Your task to perform on an android device: find which apps use the phone's location Image 0: 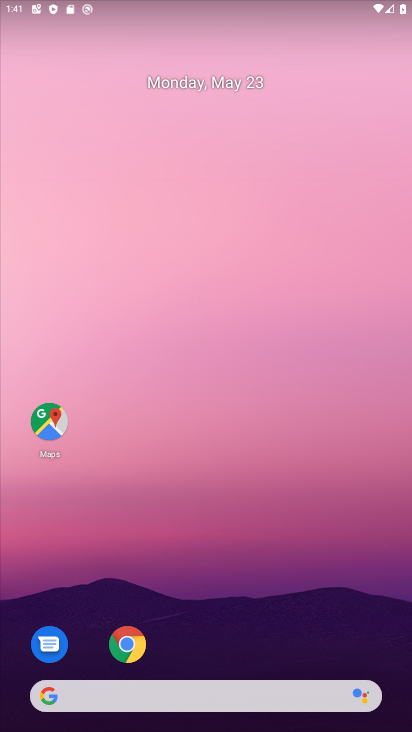
Step 0: drag from (276, 608) to (203, 20)
Your task to perform on an android device: find which apps use the phone's location Image 1: 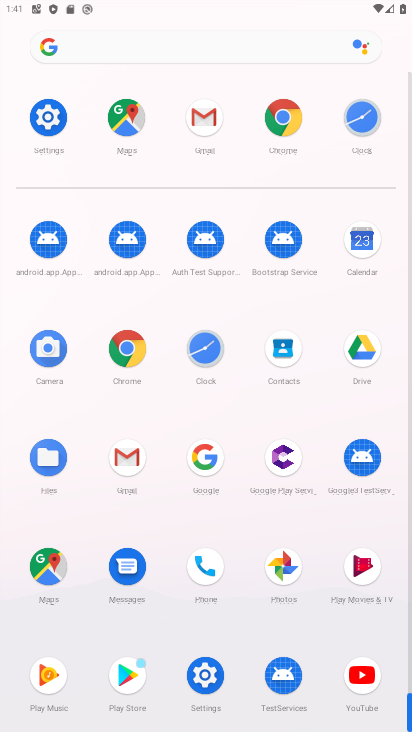
Step 1: drag from (15, 551) to (23, 186)
Your task to perform on an android device: find which apps use the phone's location Image 2: 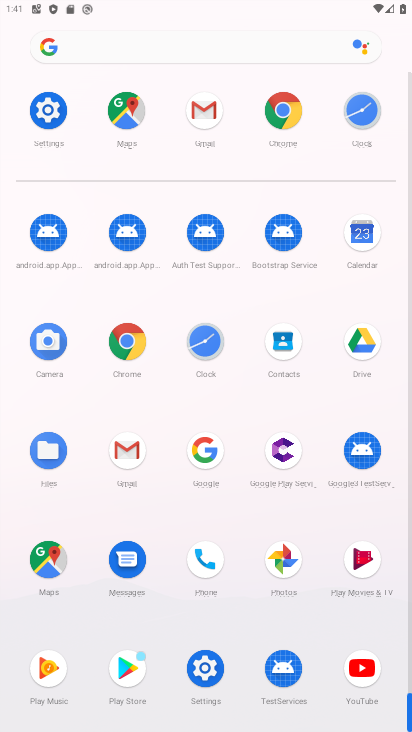
Step 2: click (204, 664)
Your task to perform on an android device: find which apps use the phone's location Image 3: 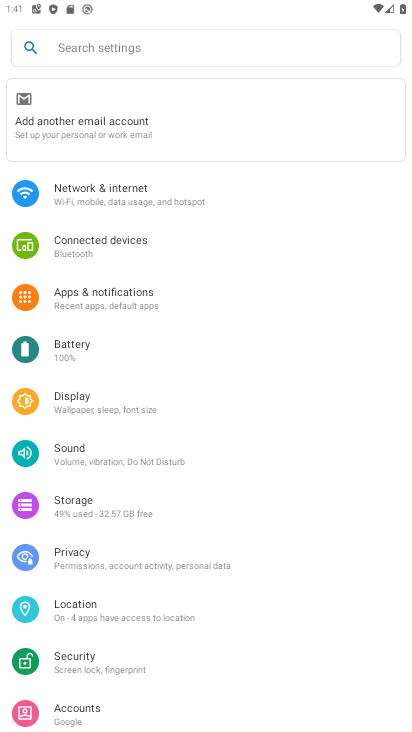
Step 3: drag from (268, 587) to (261, 163)
Your task to perform on an android device: find which apps use the phone's location Image 4: 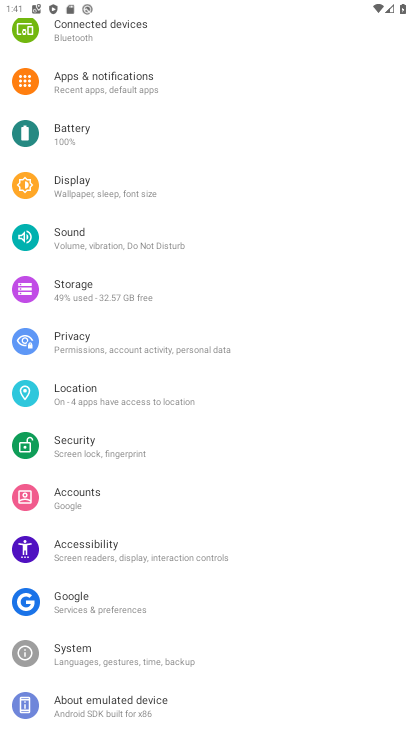
Step 4: click (91, 544)
Your task to perform on an android device: find which apps use the phone's location Image 5: 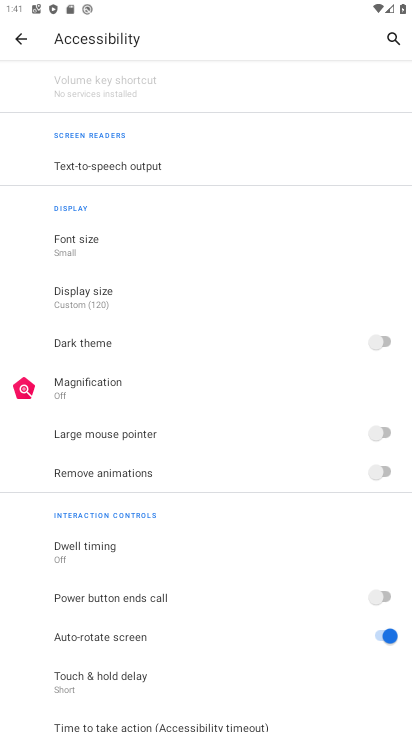
Step 5: drag from (241, 566) to (287, 142)
Your task to perform on an android device: find which apps use the phone's location Image 6: 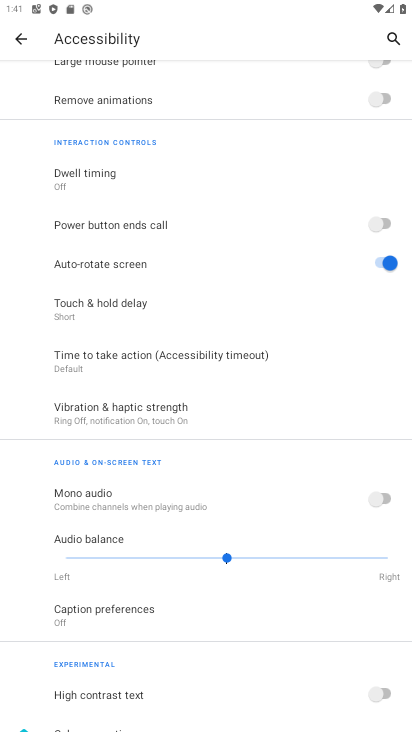
Step 6: drag from (275, 119) to (279, 724)
Your task to perform on an android device: find which apps use the phone's location Image 7: 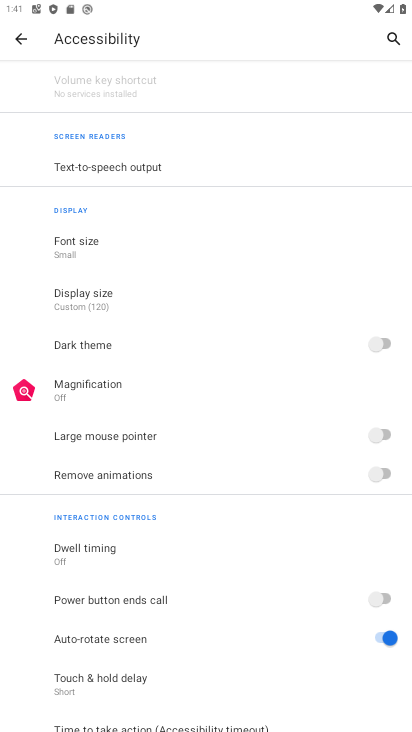
Step 7: drag from (227, 220) to (232, 628)
Your task to perform on an android device: find which apps use the phone's location Image 8: 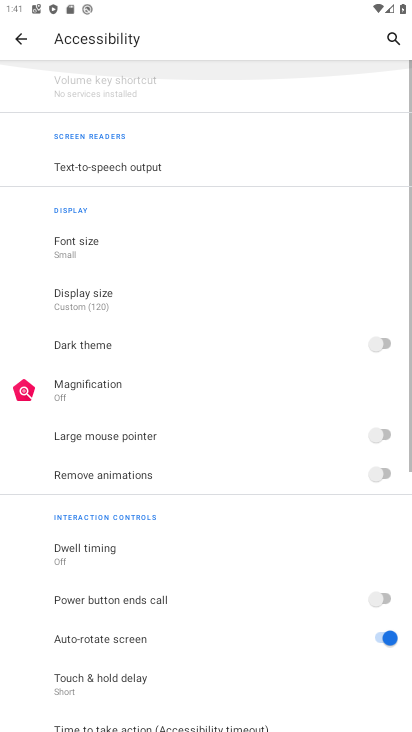
Step 8: drag from (227, 633) to (272, 85)
Your task to perform on an android device: find which apps use the phone's location Image 9: 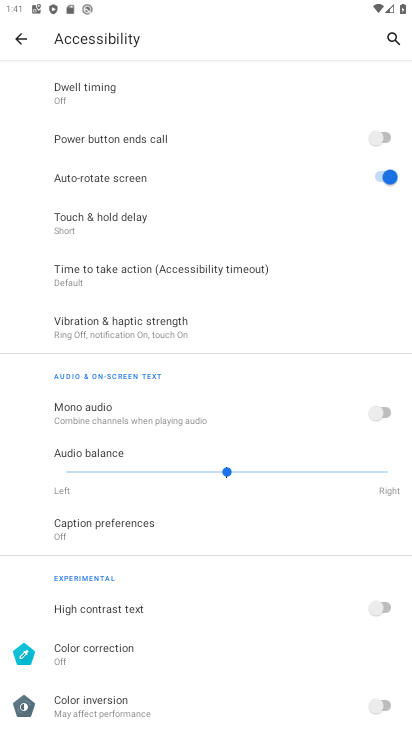
Step 9: drag from (262, 94) to (269, 573)
Your task to perform on an android device: find which apps use the phone's location Image 10: 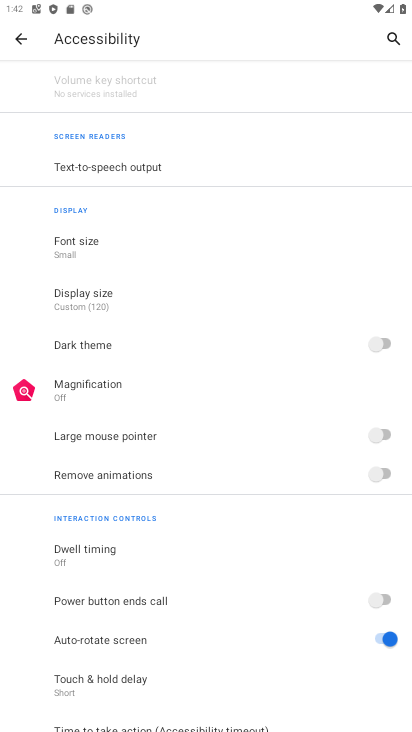
Step 10: drag from (229, 226) to (251, 618)
Your task to perform on an android device: find which apps use the phone's location Image 11: 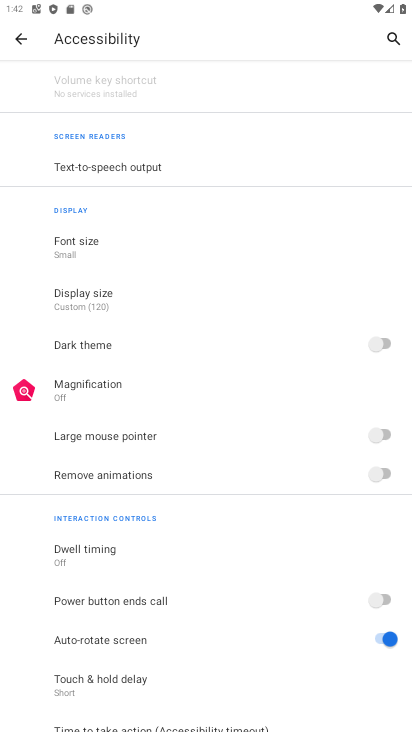
Step 11: drag from (188, 119) to (207, 611)
Your task to perform on an android device: find which apps use the phone's location Image 12: 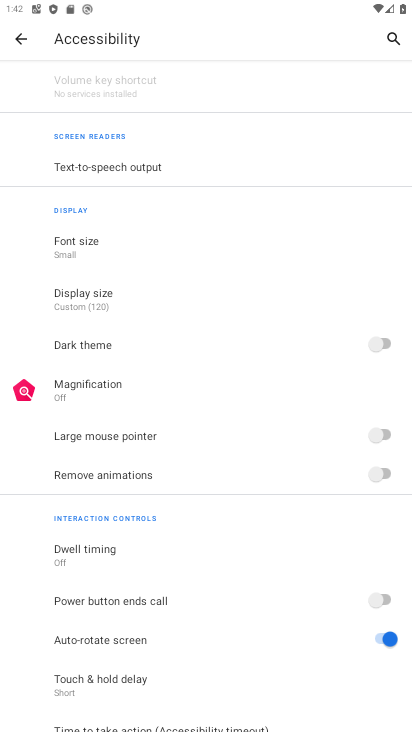
Step 12: click (20, 39)
Your task to perform on an android device: find which apps use the phone's location Image 13: 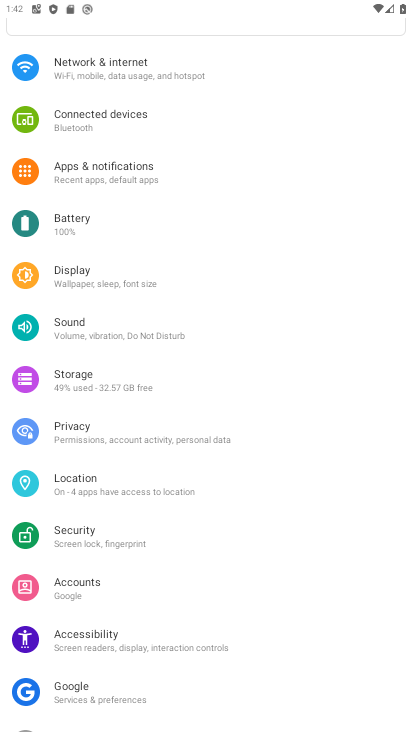
Step 13: click (123, 449)
Your task to perform on an android device: find which apps use the phone's location Image 14: 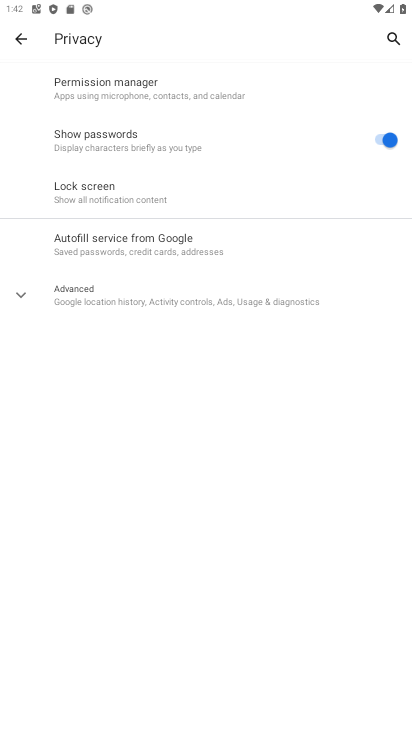
Step 14: click (46, 286)
Your task to perform on an android device: find which apps use the phone's location Image 15: 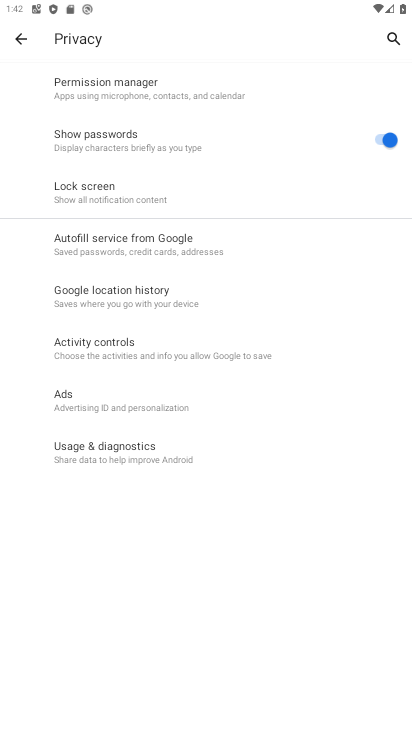
Step 15: click (25, 38)
Your task to perform on an android device: find which apps use the phone's location Image 16: 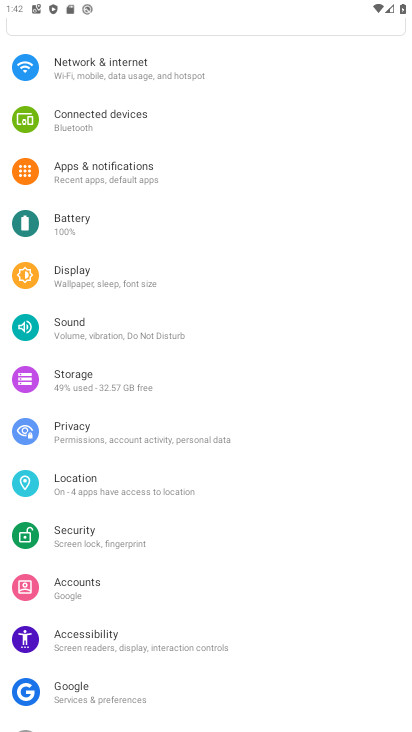
Step 16: click (94, 478)
Your task to perform on an android device: find which apps use the phone's location Image 17: 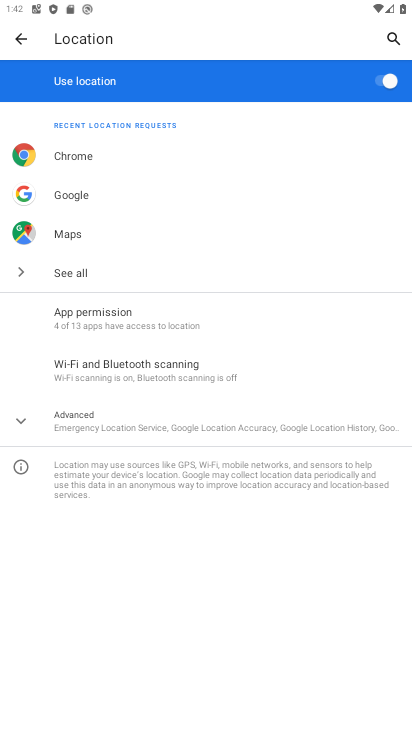
Step 17: click (99, 316)
Your task to perform on an android device: find which apps use the phone's location Image 18: 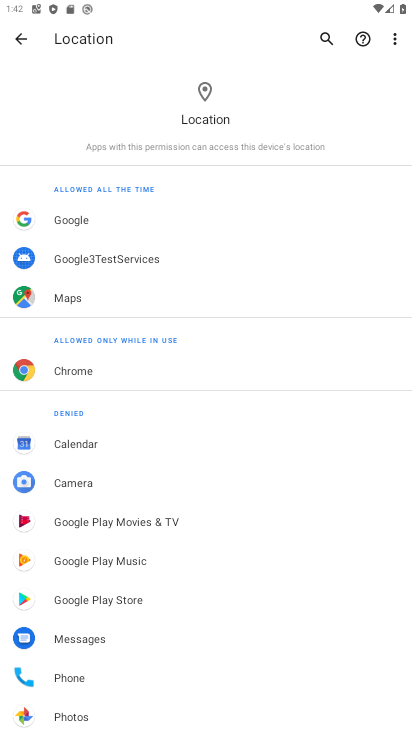
Step 18: task complete